Your task to perform on an android device: see tabs open on other devices in the chrome app Image 0: 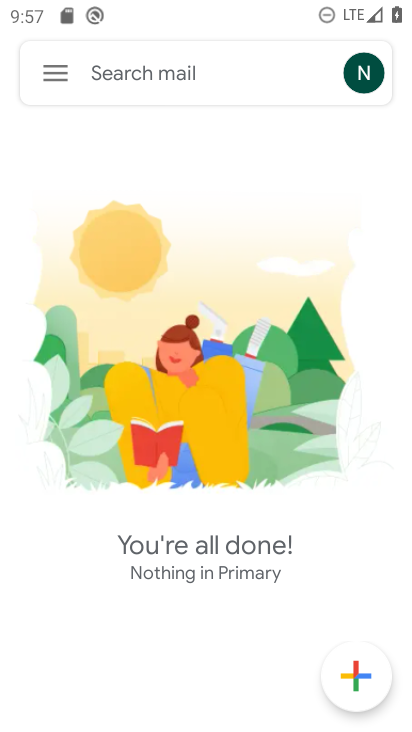
Step 0: press home button
Your task to perform on an android device: see tabs open on other devices in the chrome app Image 1: 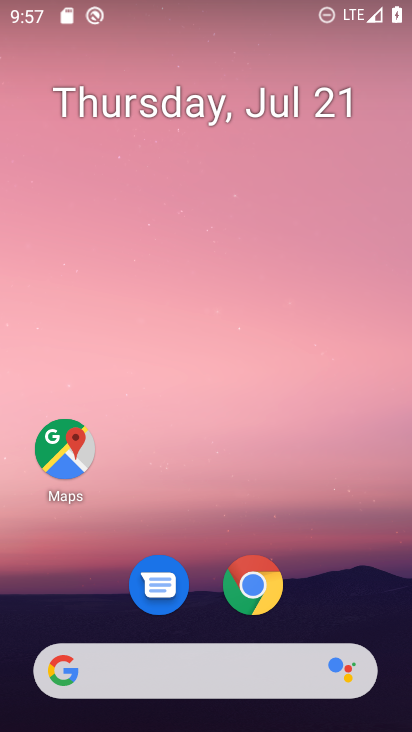
Step 1: click (254, 581)
Your task to perform on an android device: see tabs open on other devices in the chrome app Image 2: 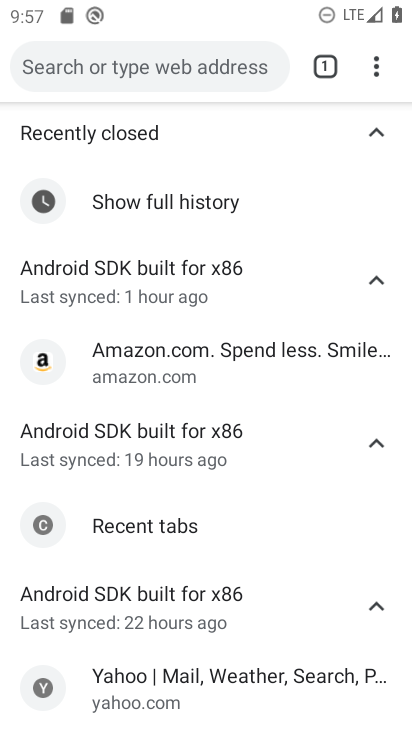
Step 2: task complete